Your task to perform on an android device: What's on my calendar tomorrow? Image 0: 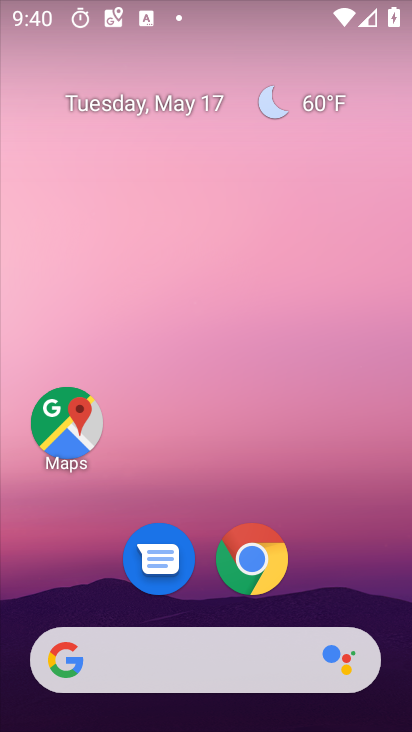
Step 0: drag from (220, 612) to (239, 205)
Your task to perform on an android device: What's on my calendar tomorrow? Image 1: 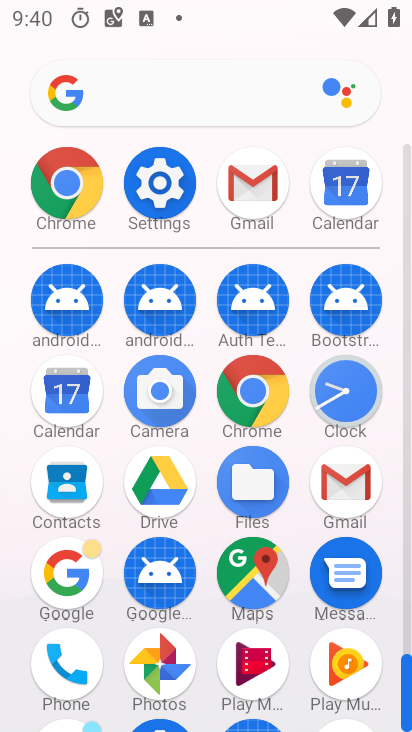
Step 1: click (88, 392)
Your task to perform on an android device: What's on my calendar tomorrow? Image 2: 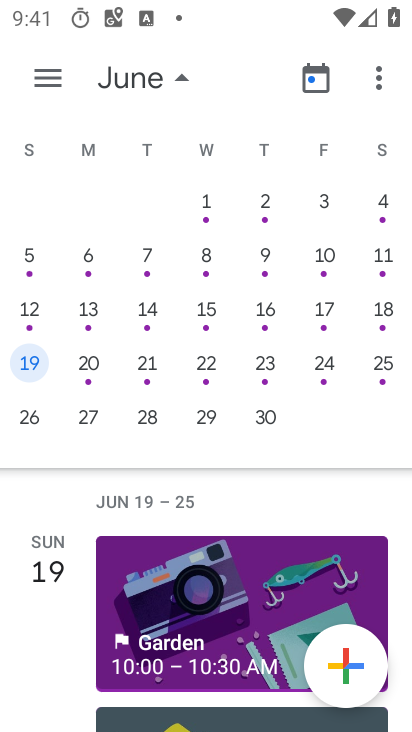
Step 2: click (92, 367)
Your task to perform on an android device: What's on my calendar tomorrow? Image 3: 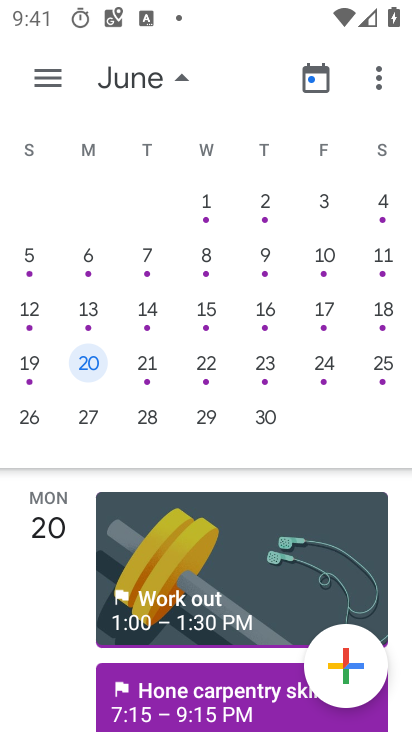
Step 3: task complete